Your task to perform on an android device: Open eBay Image 0: 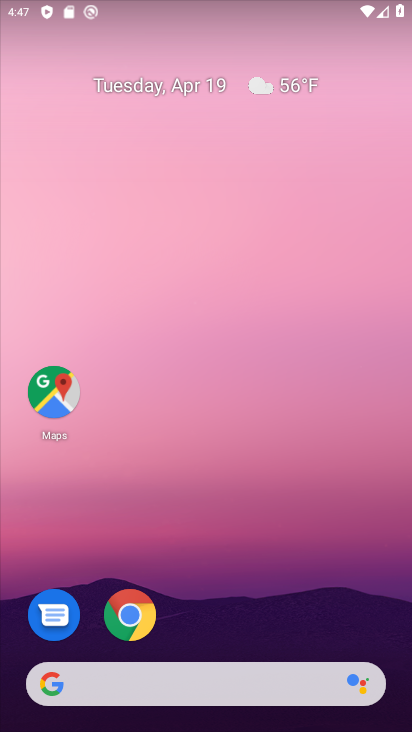
Step 0: click (125, 612)
Your task to perform on an android device: Open eBay Image 1: 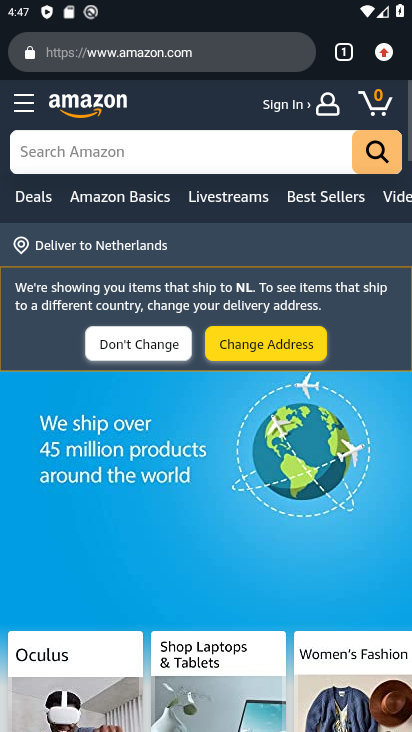
Step 1: click (151, 58)
Your task to perform on an android device: Open eBay Image 2: 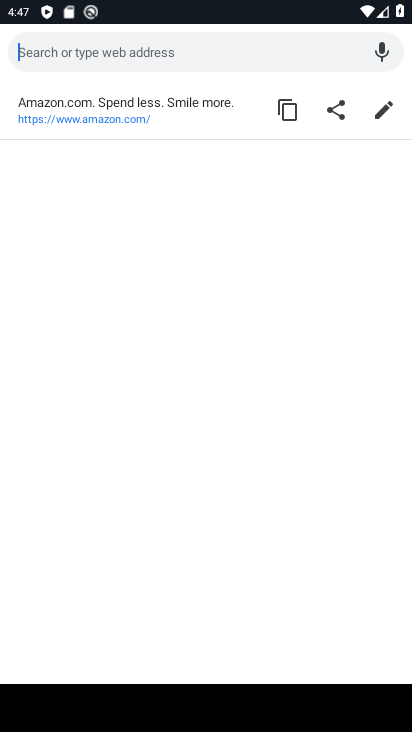
Step 2: type "ebay"
Your task to perform on an android device: Open eBay Image 3: 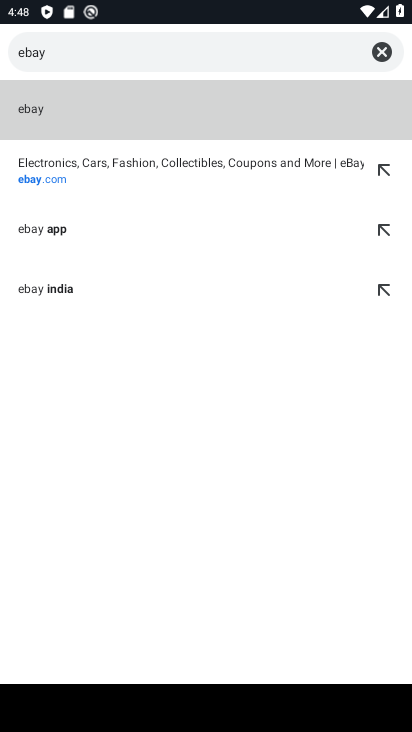
Step 3: click (42, 182)
Your task to perform on an android device: Open eBay Image 4: 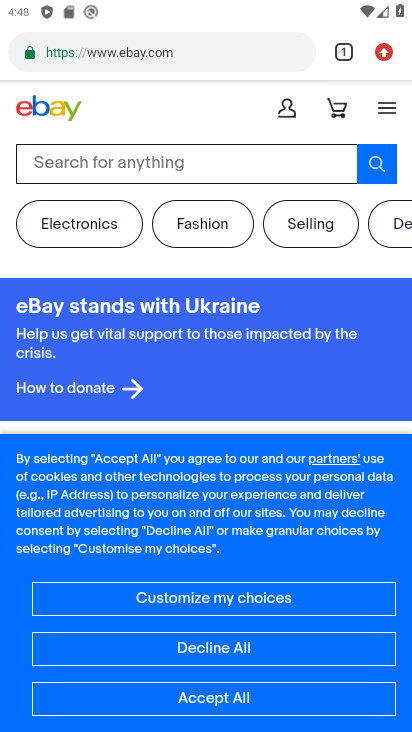
Step 4: task complete